Your task to perform on an android device: How much does a 2 bedroom apartment rent for in New York? Image 0: 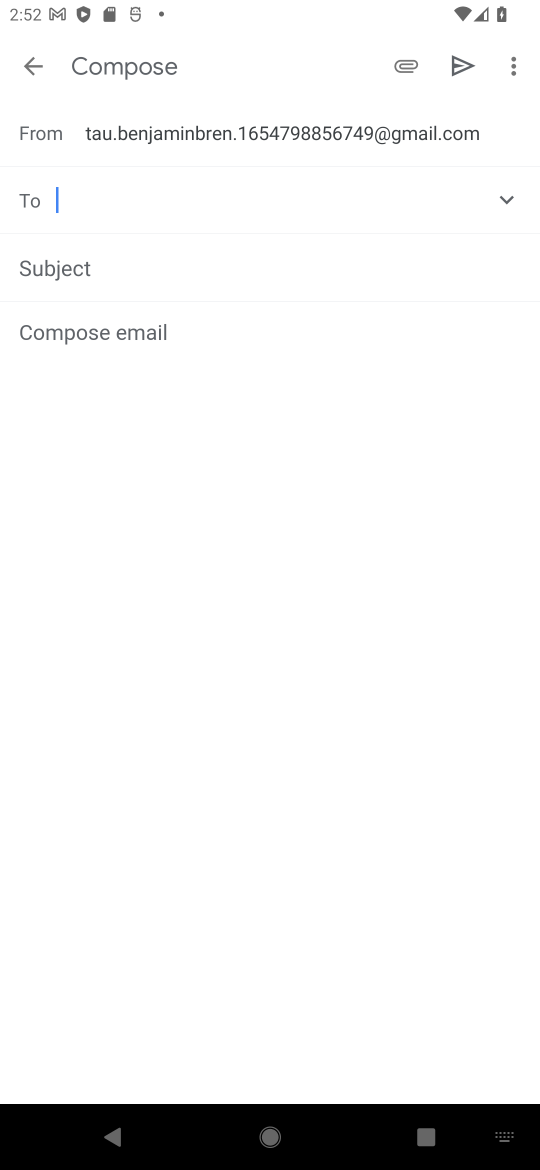
Step 0: press home button
Your task to perform on an android device: How much does a 2 bedroom apartment rent for in New York? Image 1: 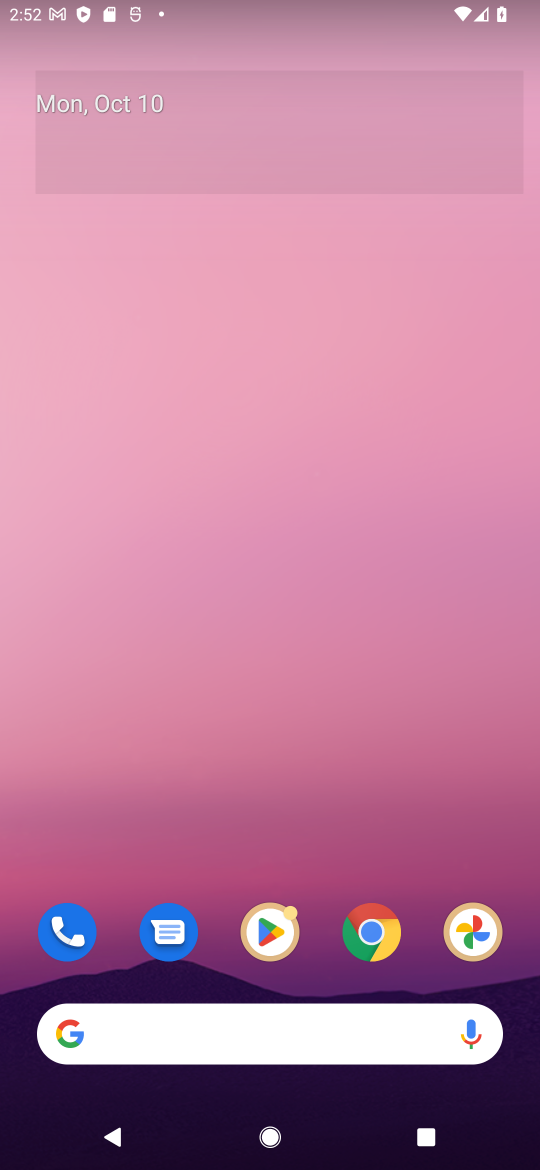
Step 1: click (393, 1034)
Your task to perform on an android device: How much does a 2 bedroom apartment rent for in New York? Image 2: 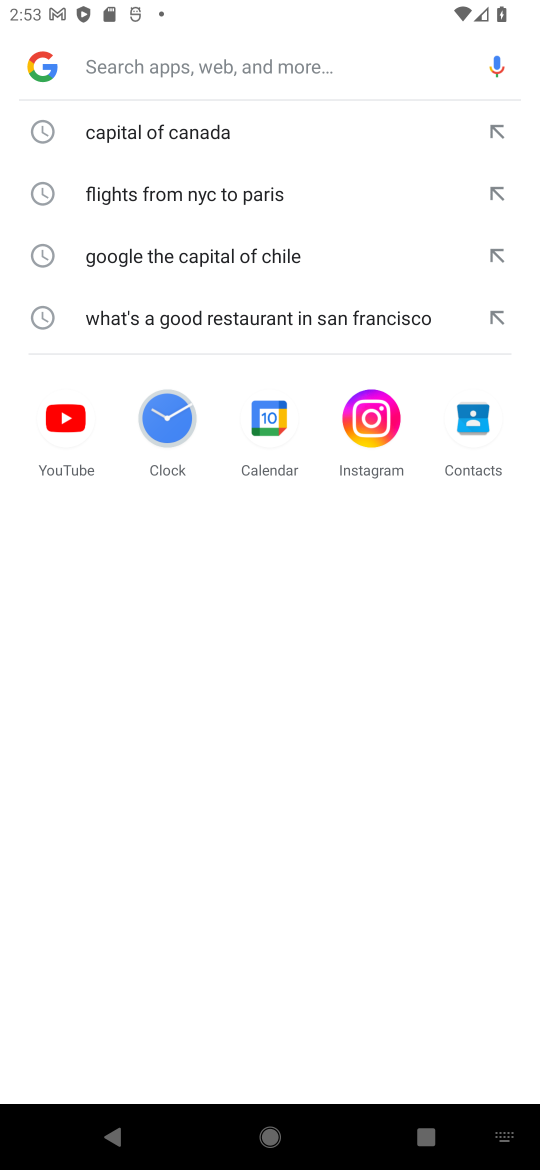
Step 2: type "How much does a 2 bedroom apartment rent for in New York"
Your task to perform on an android device: How much does a 2 bedroom apartment rent for in New York? Image 3: 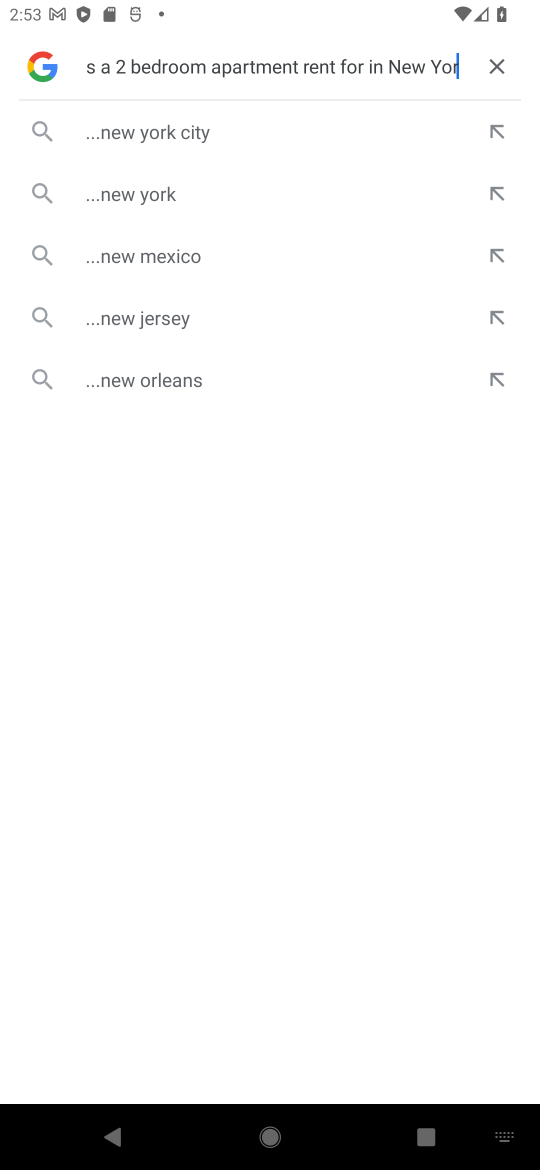
Step 3: press enter
Your task to perform on an android device: How much does a 2 bedroom apartment rent for in New York? Image 4: 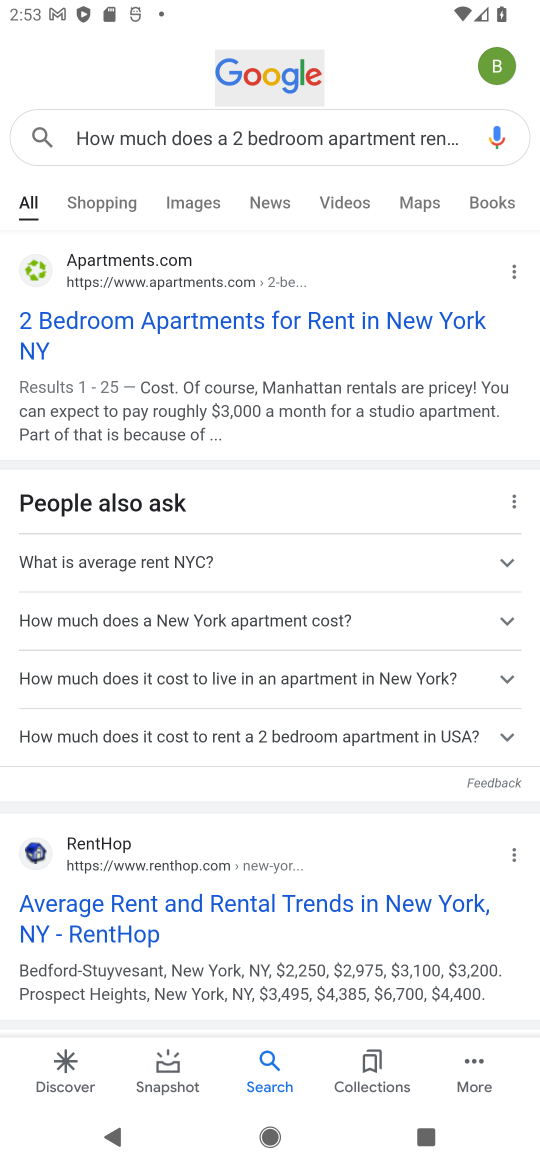
Step 4: click (343, 330)
Your task to perform on an android device: How much does a 2 bedroom apartment rent for in New York? Image 5: 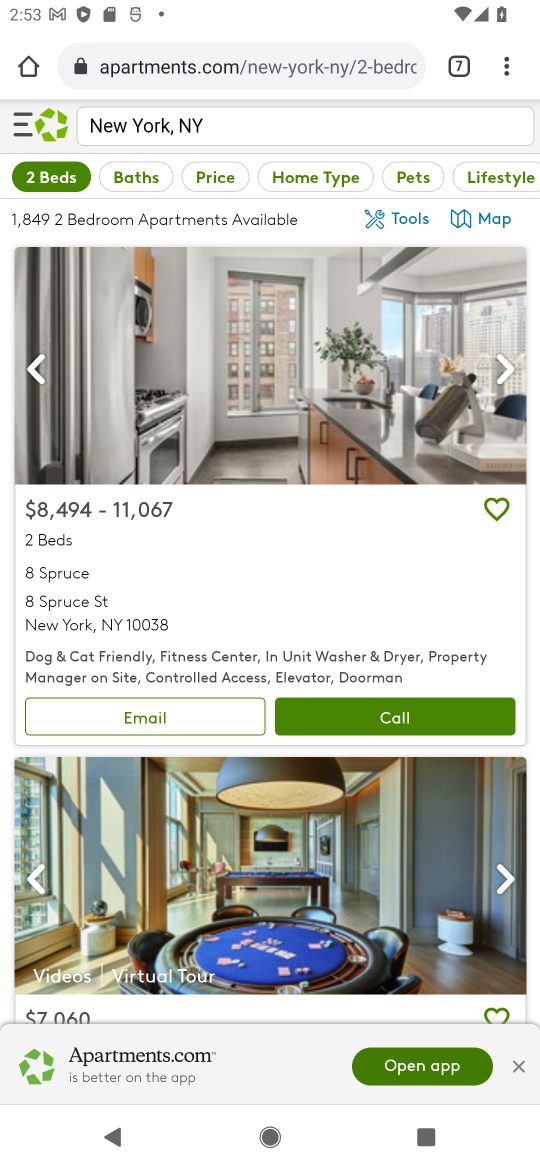
Step 5: task complete